Your task to perform on an android device: star an email in the gmail app Image 0: 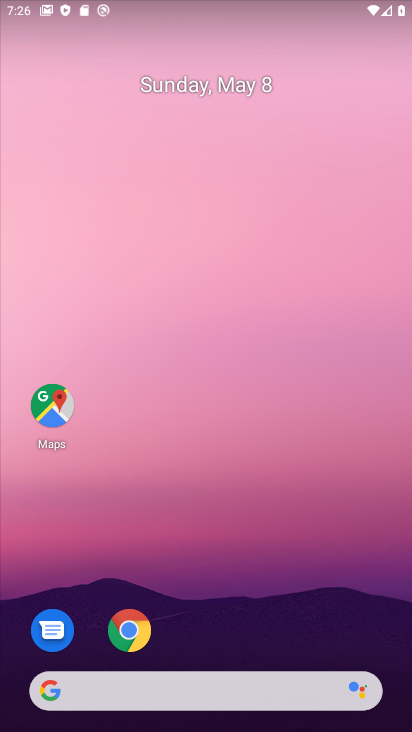
Step 0: drag from (226, 630) to (218, 90)
Your task to perform on an android device: star an email in the gmail app Image 1: 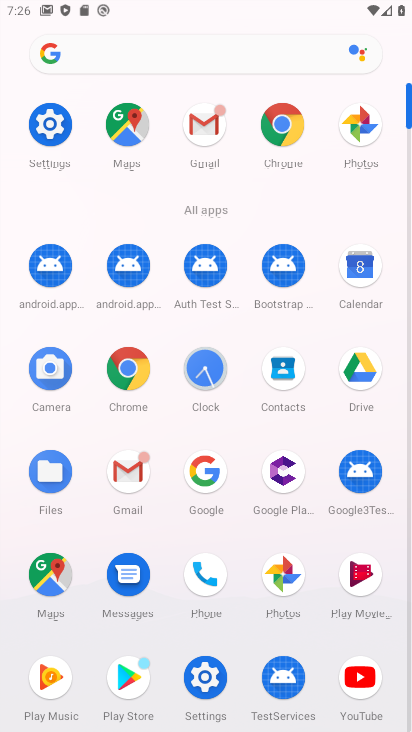
Step 1: click (216, 120)
Your task to perform on an android device: star an email in the gmail app Image 2: 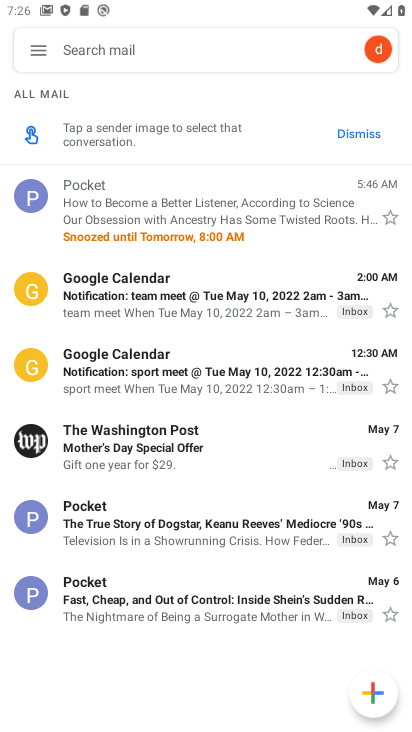
Step 2: click (384, 315)
Your task to perform on an android device: star an email in the gmail app Image 3: 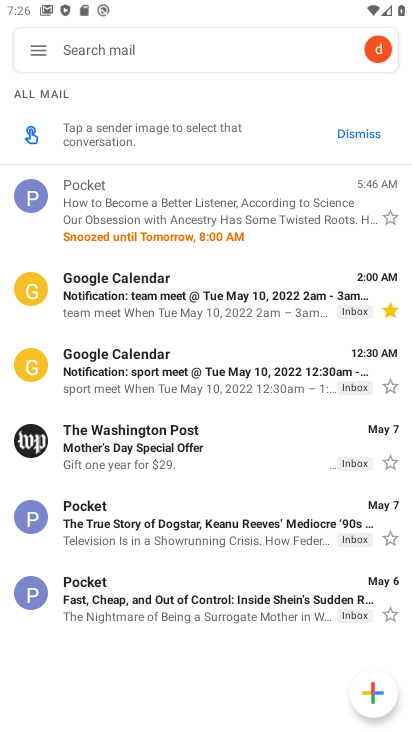
Step 3: task complete